Your task to perform on an android device: turn on notifications settings in the gmail app Image 0: 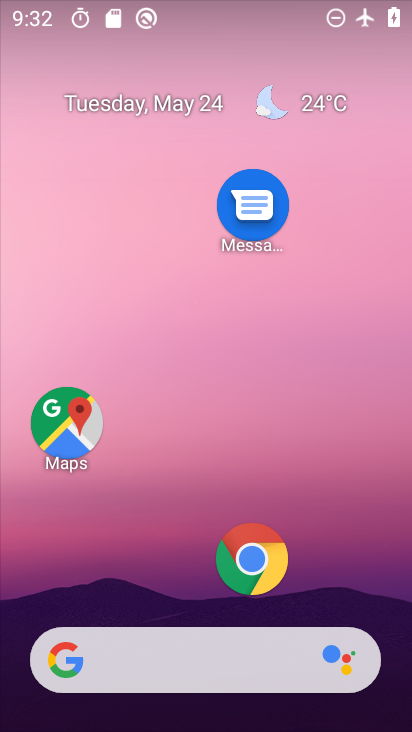
Step 0: drag from (199, 601) to (197, 186)
Your task to perform on an android device: turn on notifications settings in the gmail app Image 1: 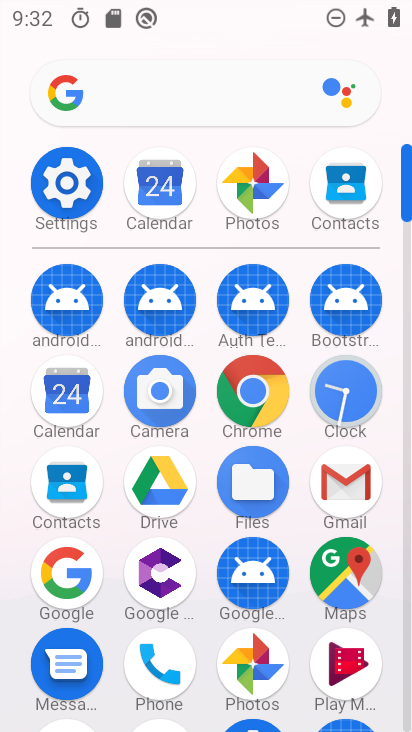
Step 1: click (351, 494)
Your task to perform on an android device: turn on notifications settings in the gmail app Image 2: 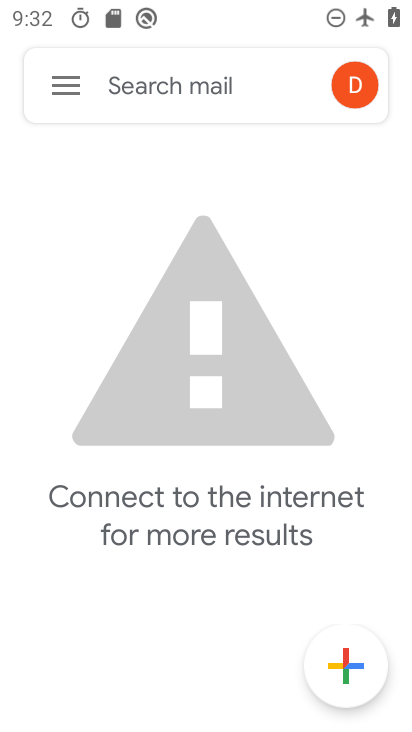
Step 2: click (59, 71)
Your task to perform on an android device: turn on notifications settings in the gmail app Image 3: 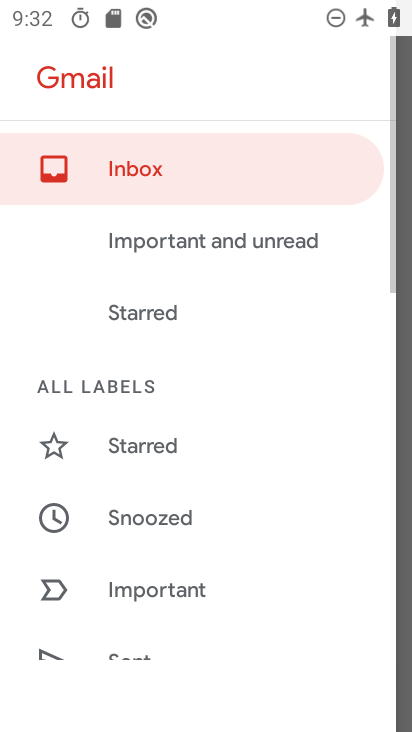
Step 3: drag from (190, 631) to (230, 232)
Your task to perform on an android device: turn on notifications settings in the gmail app Image 4: 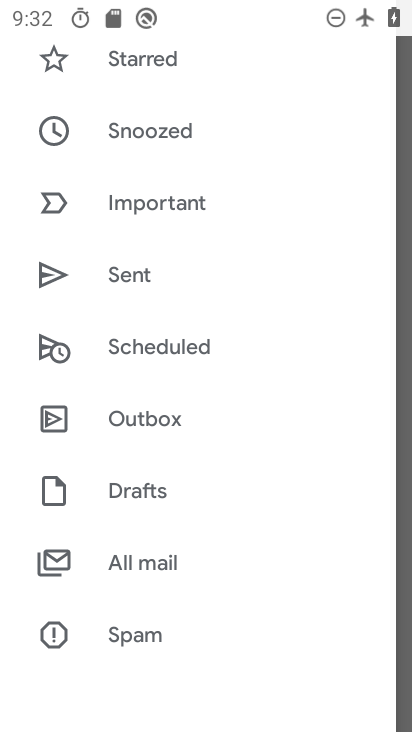
Step 4: drag from (222, 613) to (226, 304)
Your task to perform on an android device: turn on notifications settings in the gmail app Image 5: 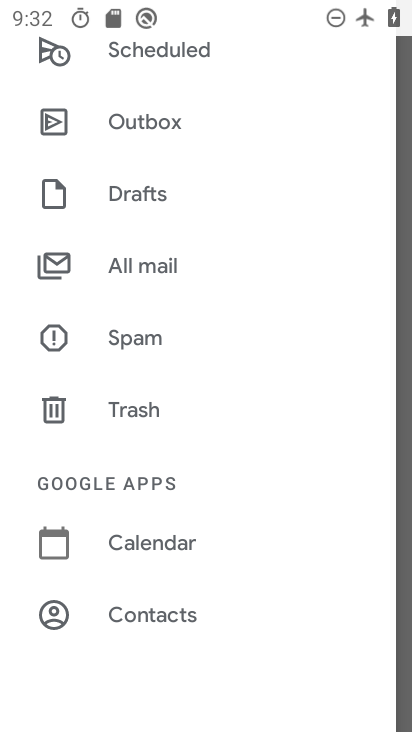
Step 5: drag from (194, 580) to (210, 311)
Your task to perform on an android device: turn on notifications settings in the gmail app Image 6: 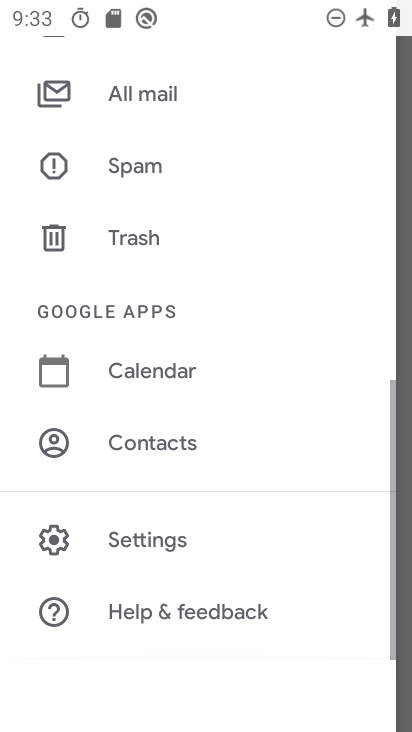
Step 6: click (182, 529)
Your task to perform on an android device: turn on notifications settings in the gmail app Image 7: 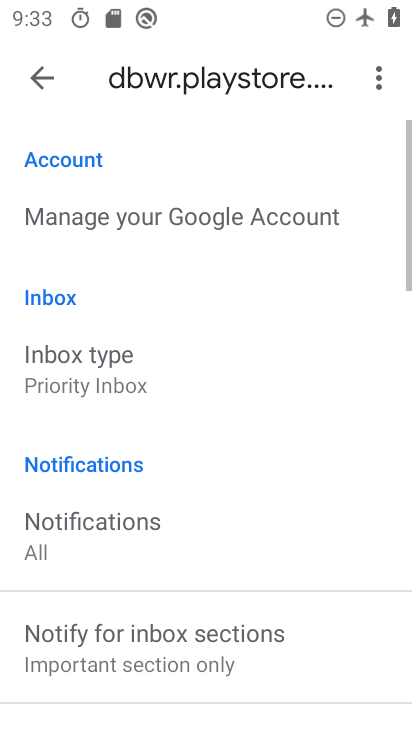
Step 7: drag from (180, 641) to (215, 377)
Your task to perform on an android device: turn on notifications settings in the gmail app Image 8: 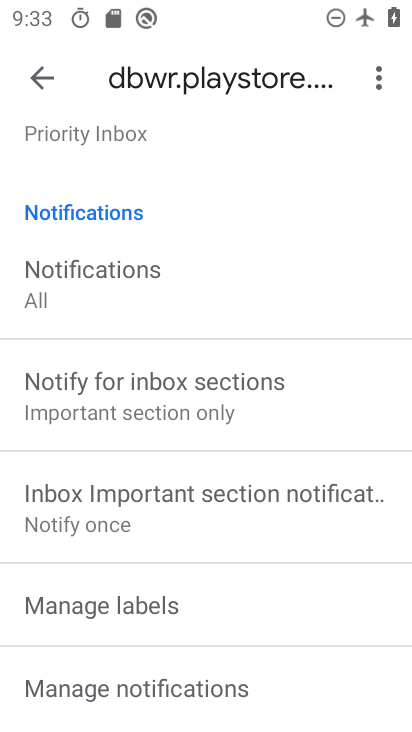
Step 8: click (172, 696)
Your task to perform on an android device: turn on notifications settings in the gmail app Image 9: 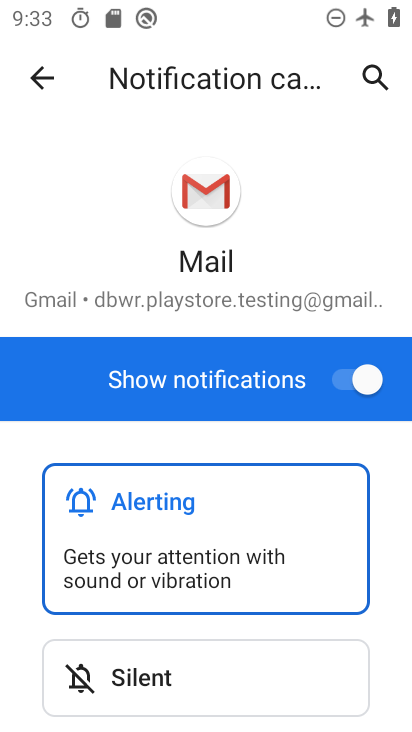
Step 9: task complete